Your task to perform on an android device: add a contact in the contacts app Image 0: 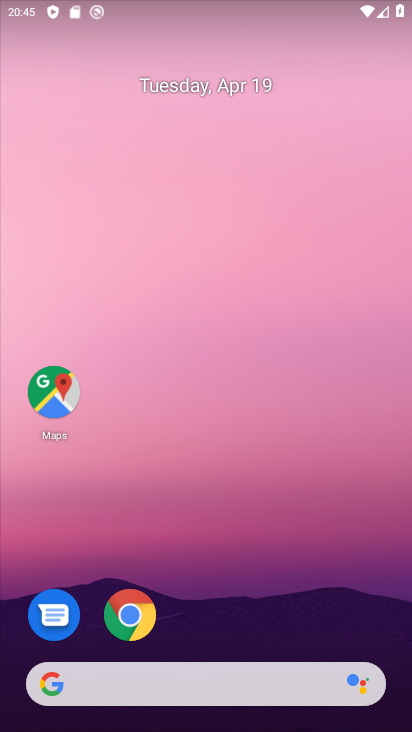
Step 0: drag from (192, 666) to (259, 301)
Your task to perform on an android device: add a contact in the contacts app Image 1: 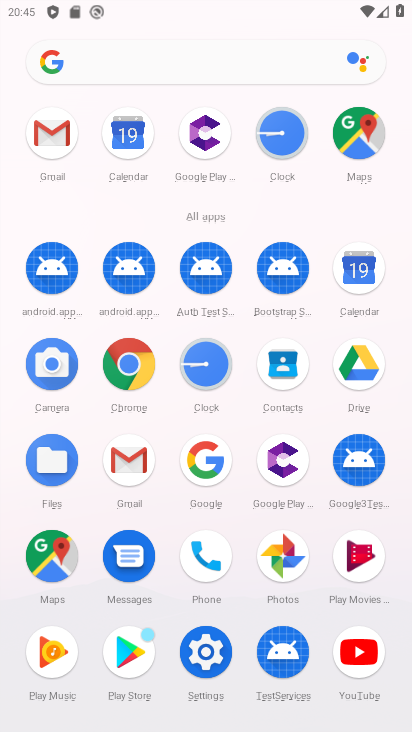
Step 1: click (280, 371)
Your task to perform on an android device: add a contact in the contacts app Image 2: 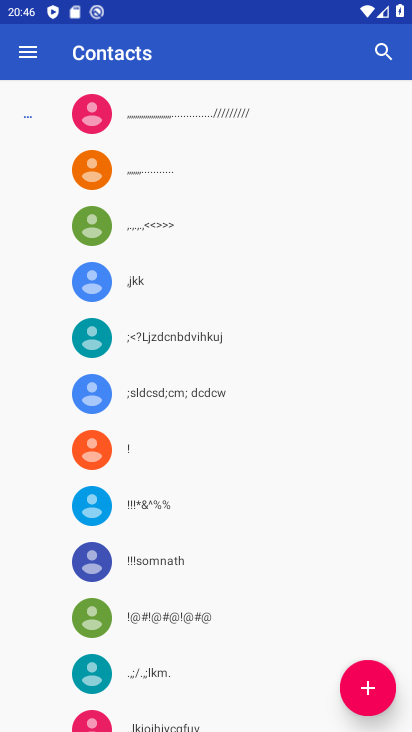
Step 2: click (347, 682)
Your task to perform on an android device: add a contact in the contacts app Image 3: 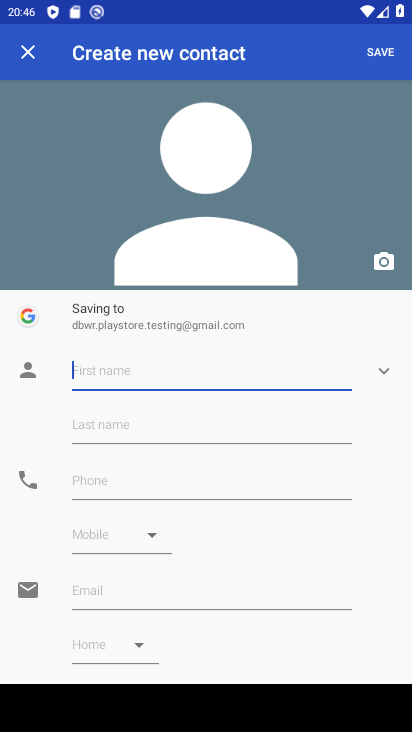
Step 3: type "juli"
Your task to perform on an android device: add a contact in the contacts app Image 4: 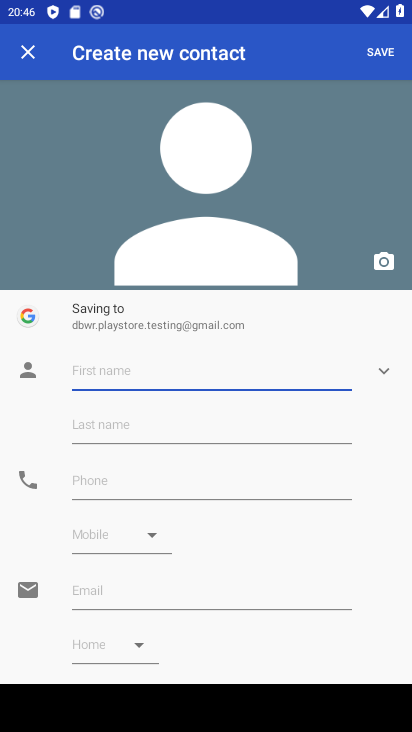
Step 4: click (144, 418)
Your task to perform on an android device: add a contact in the contacts app Image 5: 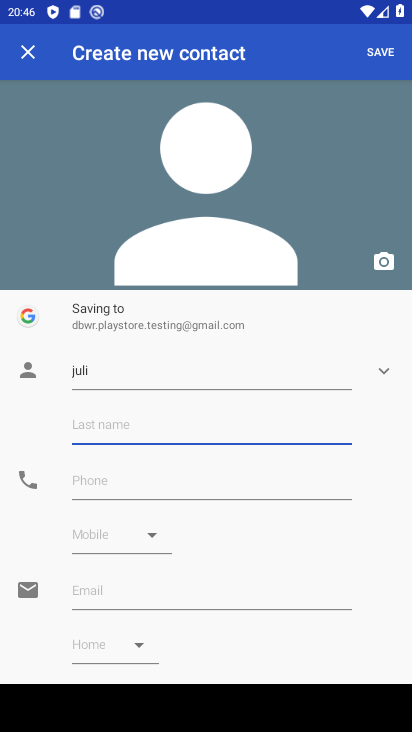
Step 5: type "jha"
Your task to perform on an android device: add a contact in the contacts app Image 6: 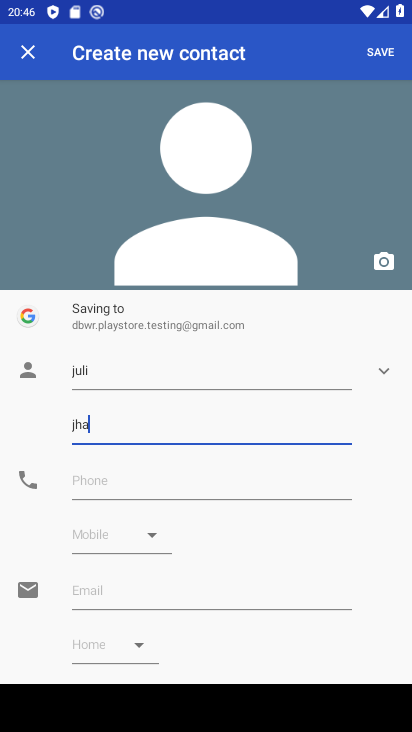
Step 6: click (112, 482)
Your task to perform on an android device: add a contact in the contacts app Image 7: 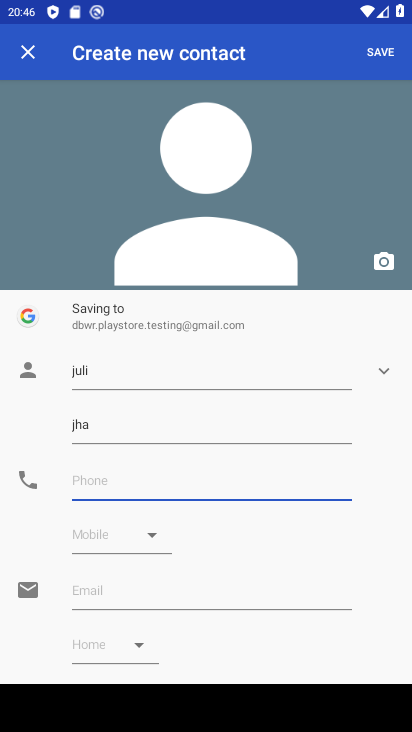
Step 7: type "7568978675"
Your task to perform on an android device: add a contact in the contacts app Image 8: 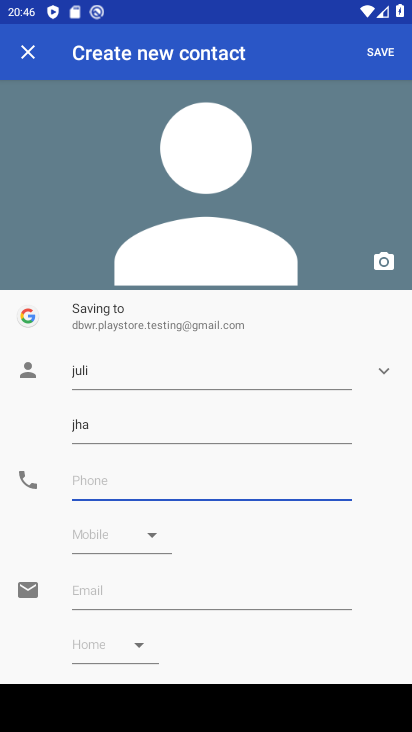
Step 8: click (79, 583)
Your task to perform on an android device: add a contact in the contacts app Image 9: 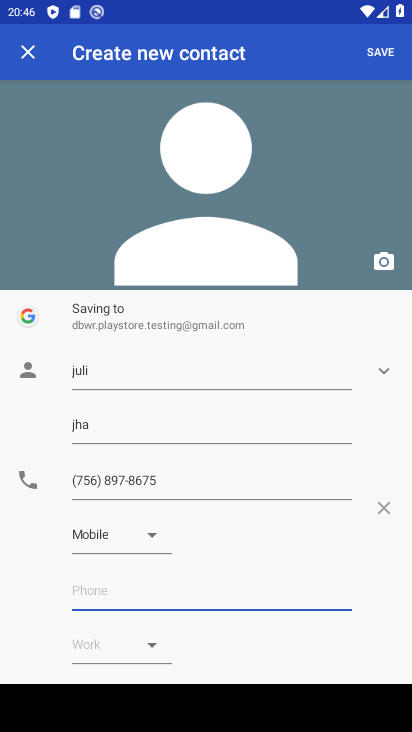
Step 9: click (386, 50)
Your task to perform on an android device: add a contact in the contacts app Image 10: 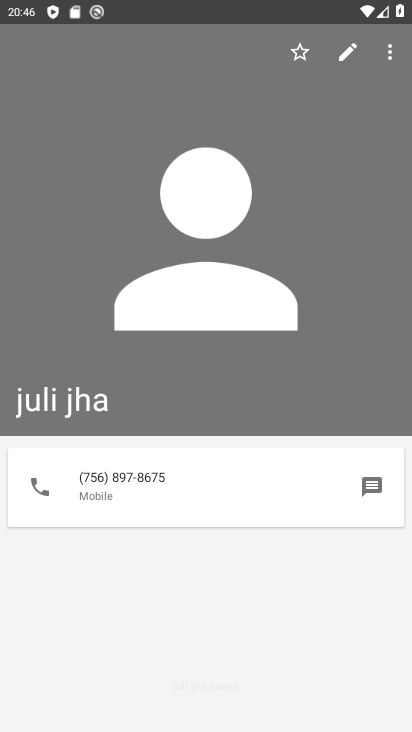
Step 10: task complete